Your task to perform on an android device: Search for Italian restaurants on Maps Image 0: 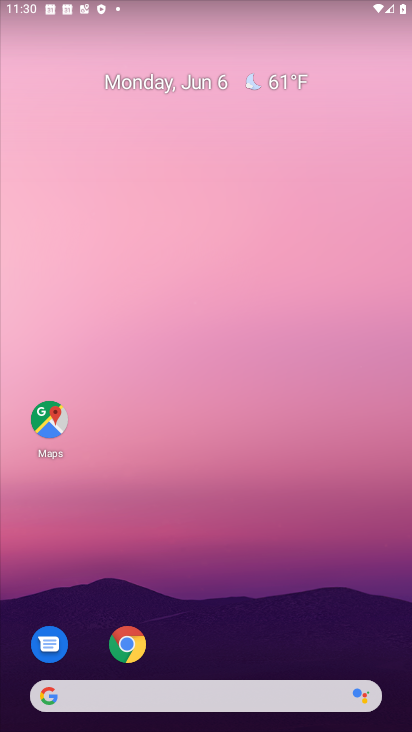
Step 0: drag from (285, 679) to (255, 363)
Your task to perform on an android device: Search for Italian restaurants on Maps Image 1: 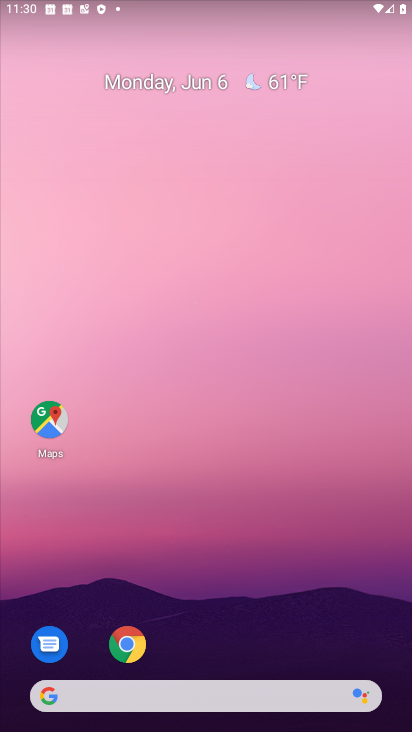
Step 1: click (65, 431)
Your task to perform on an android device: Search for Italian restaurants on Maps Image 2: 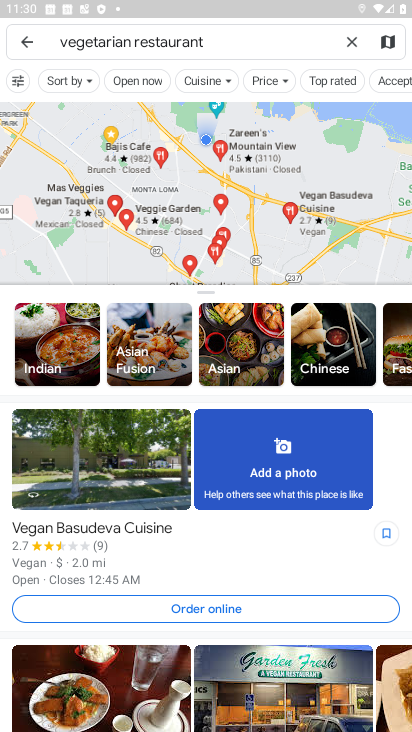
Step 2: click (357, 42)
Your task to perform on an android device: Search for Italian restaurants on Maps Image 3: 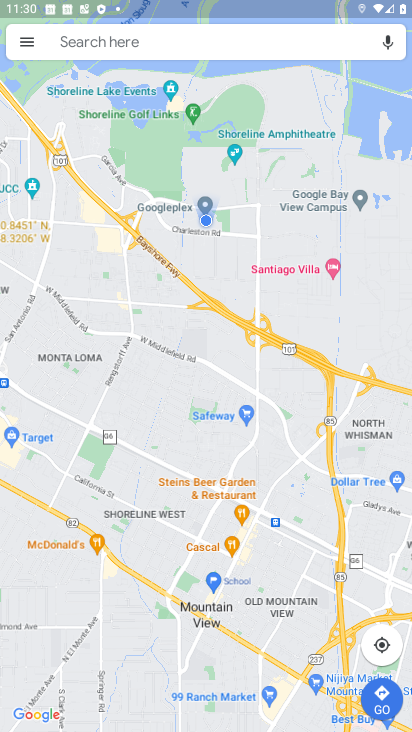
Step 3: click (216, 51)
Your task to perform on an android device: Search for Italian restaurants on Maps Image 4: 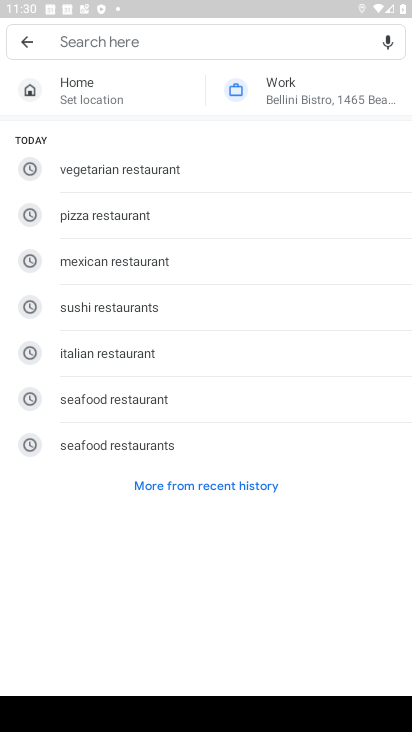
Step 4: click (133, 354)
Your task to perform on an android device: Search for Italian restaurants on Maps Image 5: 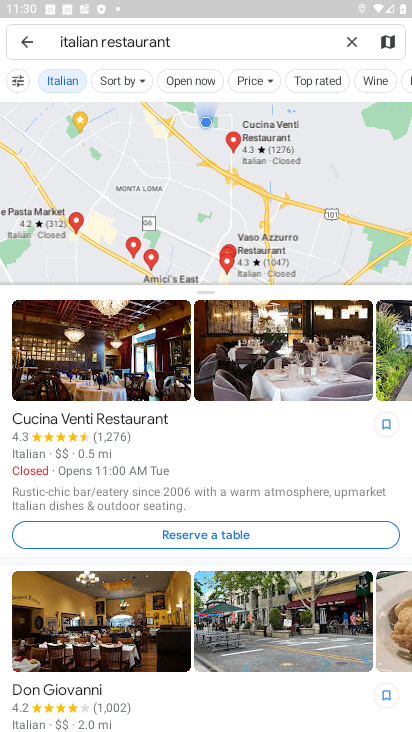
Step 5: task complete